Your task to perform on an android device: Go to battery settings Image 0: 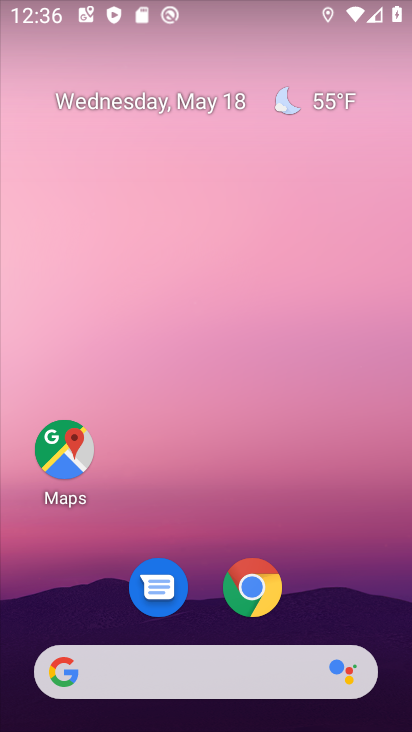
Step 0: click (248, 119)
Your task to perform on an android device: Go to battery settings Image 1: 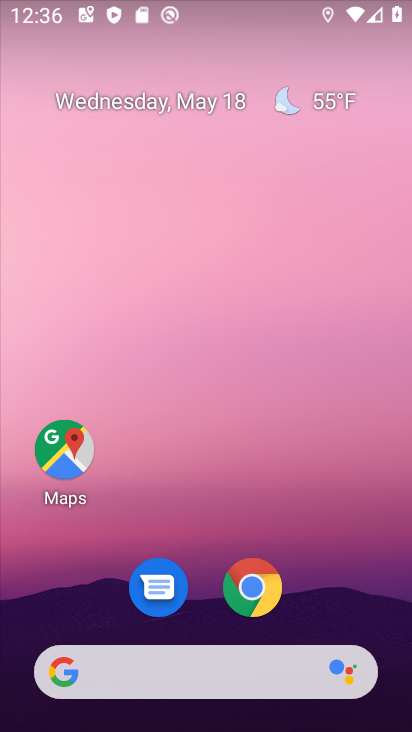
Step 1: drag from (288, 588) to (269, 30)
Your task to perform on an android device: Go to battery settings Image 2: 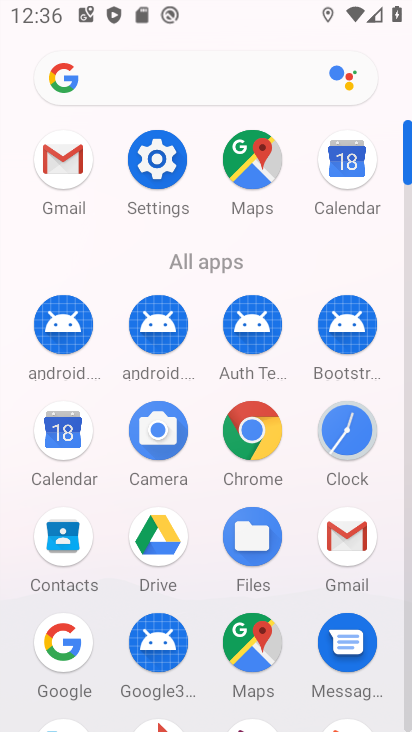
Step 2: click (156, 156)
Your task to perform on an android device: Go to battery settings Image 3: 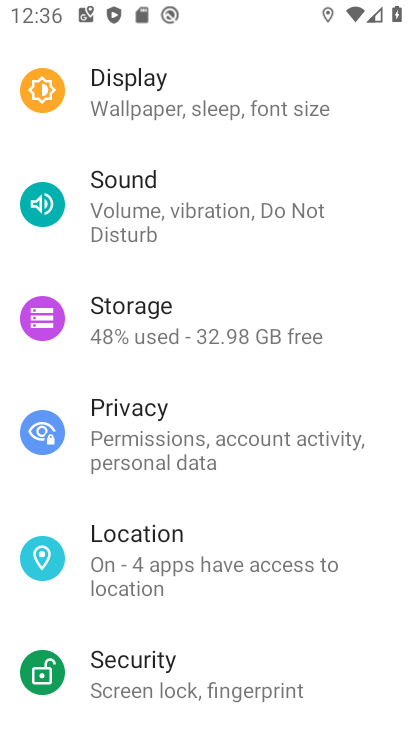
Step 3: drag from (180, 554) to (164, 166)
Your task to perform on an android device: Go to battery settings Image 4: 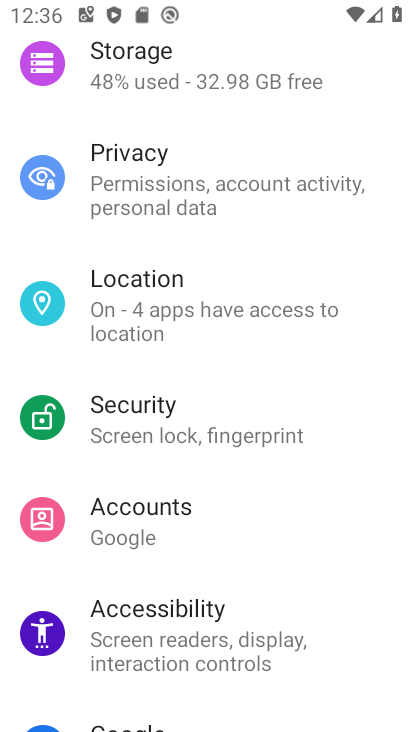
Step 4: drag from (150, 376) to (150, 425)
Your task to perform on an android device: Go to battery settings Image 5: 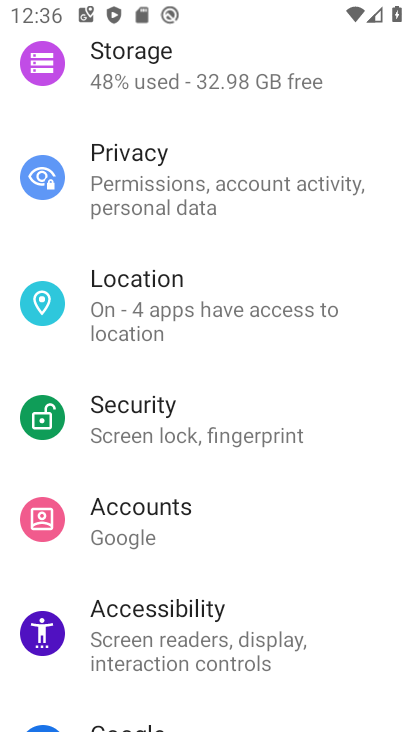
Step 5: drag from (168, 250) to (182, 465)
Your task to perform on an android device: Go to battery settings Image 6: 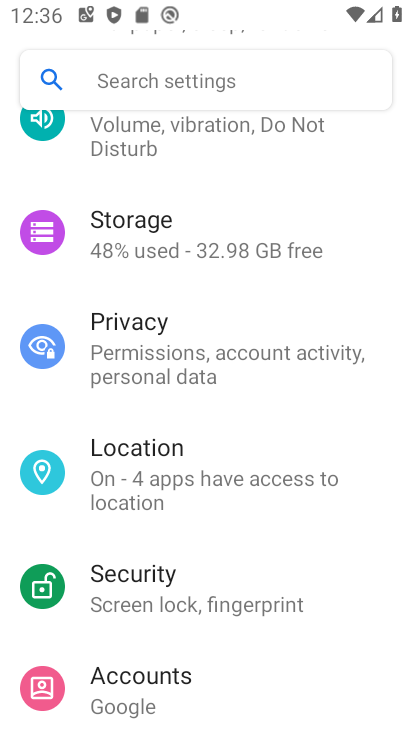
Step 6: drag from (214, 306) to (191, 597)
Your task to perform on an android device: Go to battery settings Image 7: 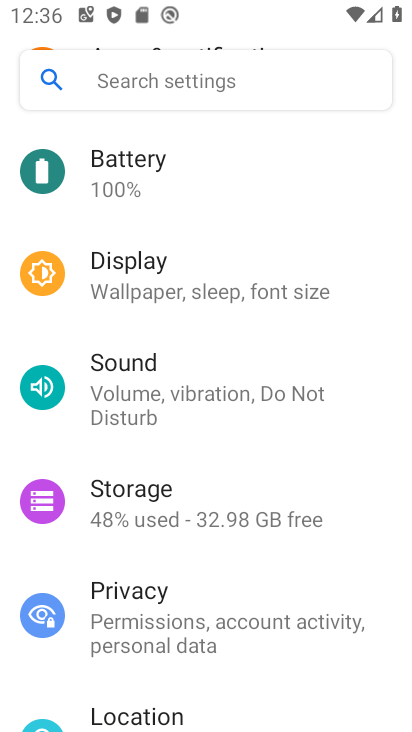
Step 7: click (150, 186)
Your task to perform on an android device: Go to battery settings Image 8: 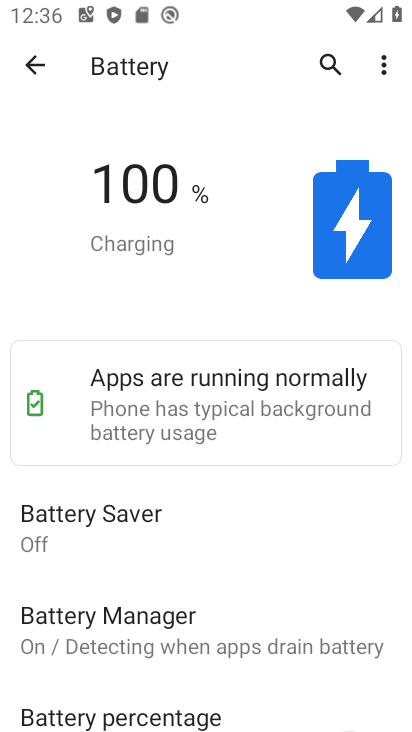
Step 8: task complete